Your task to perform on an android device: Open display settings Image 0: 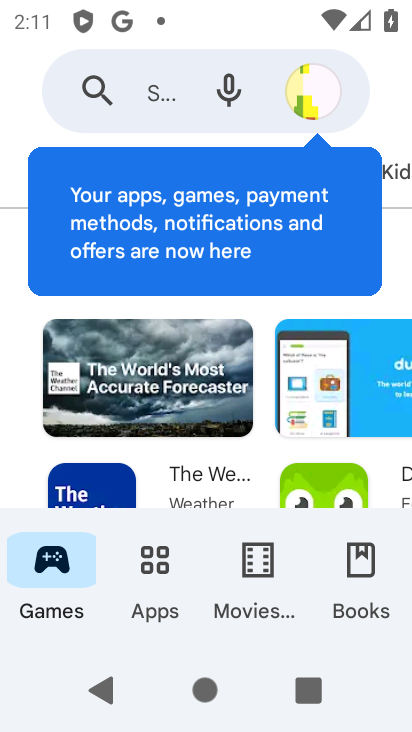
Step 0: press home button
Your task to perform on an android device: Open display settings Image 1: 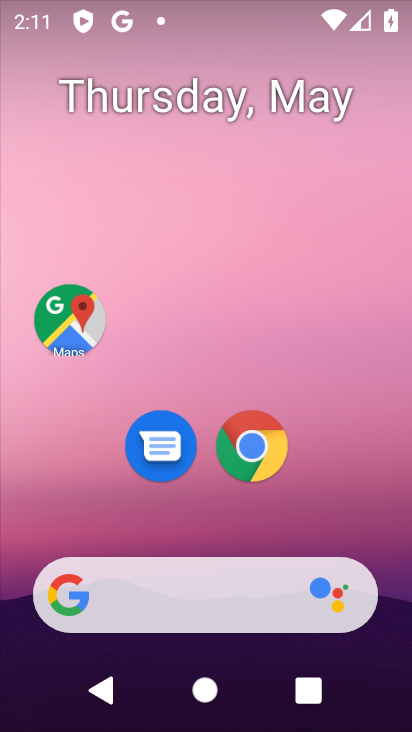
Step 1: drag from (203, 521) to (269, 2)
Your task to perform on an android device: Open display settings Image 2: 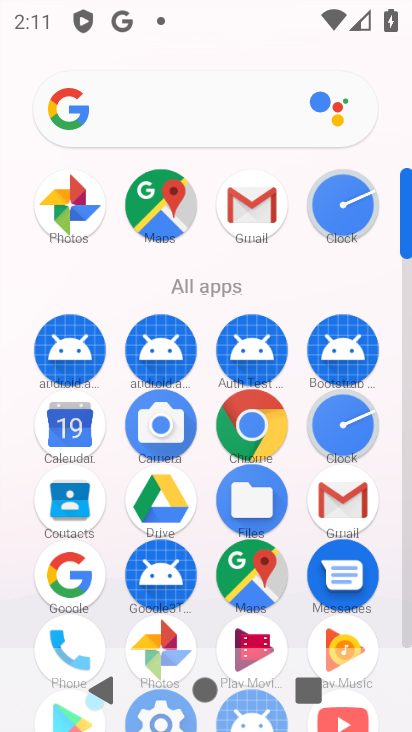
Step 2: drag from (305, 523) to (275, 140)
Your task to perform on an android device: Open display settings Image 3: 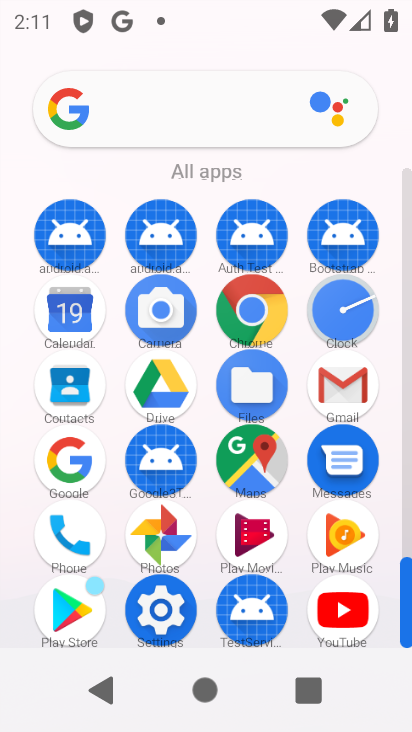
Step 3: click (165, 605)
Your task to perform on an android device: Open display settings Image 4: 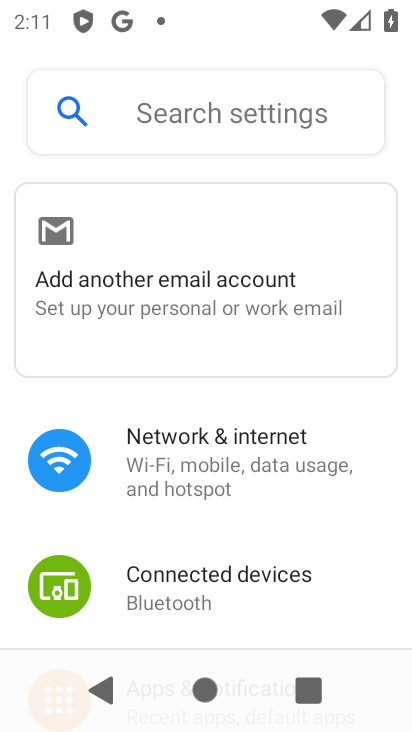
Step 4: drag from (212, 582) to (260, 201)
Your task to perform on an android device: Open display settings Image 5: 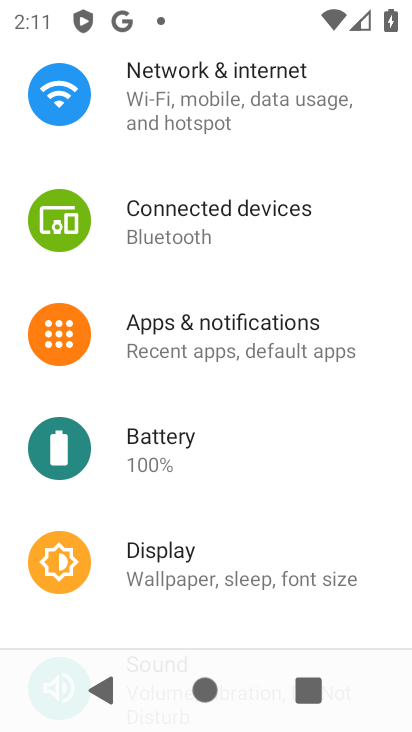
Step 5: click (170, 557)
Your task to perform on an android device: Open display settings Image 6: 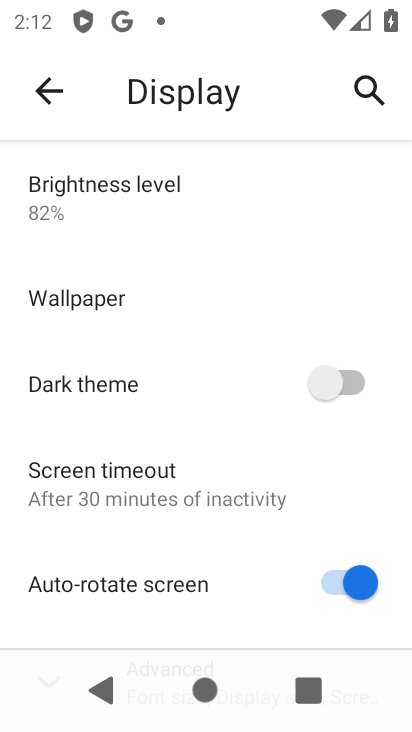
Step 6: task complete